Your task to perform on an android device: change timer sound Image 0: 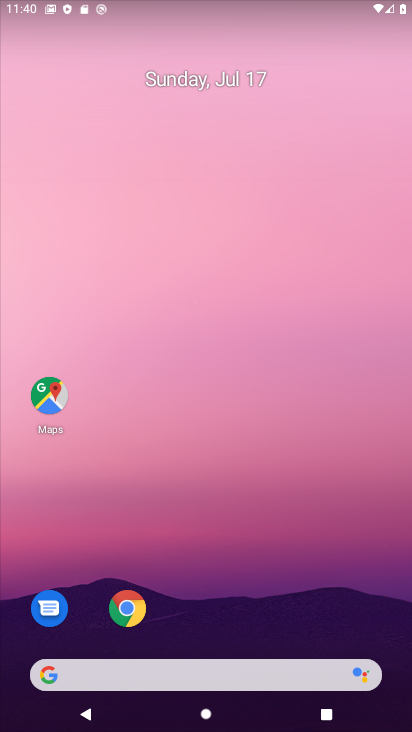
Step 0: drag from (213, 649) to (257, 175)
Your task to perform on an android device: change timer sound Image 1: 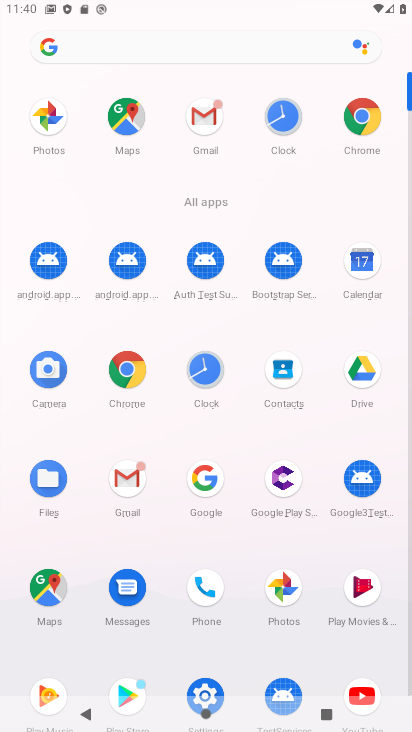
Step 1: click (207, 385)
Your task to perform on an android device: change timer sound Image 2: 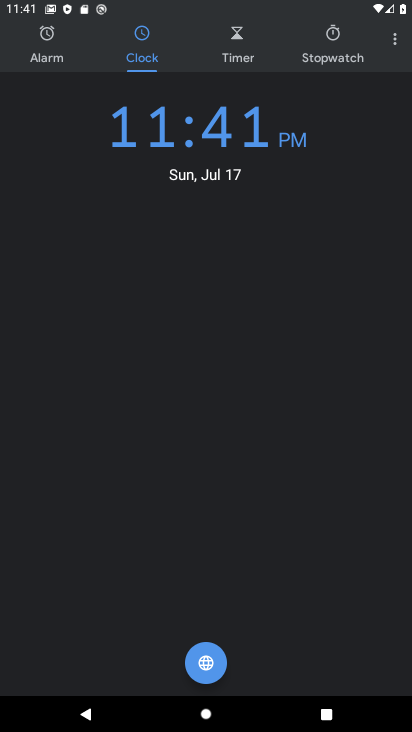
Step 2: click (397, 42)
Your task to perform on an android device: change timer sound Image 3: 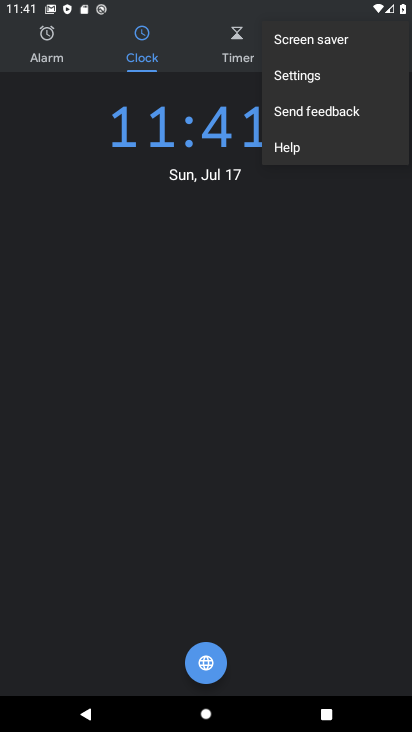
Step 3: click (325, 69)
Your task to perform on an android device: change timer sound Image 4: 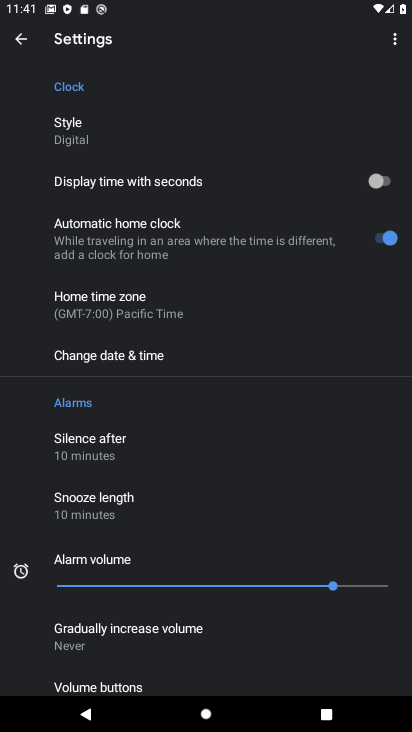
Step 4: drag from (156, 579) to (245, 195)
Your task to perform on an android device: change timer sound Image 5: 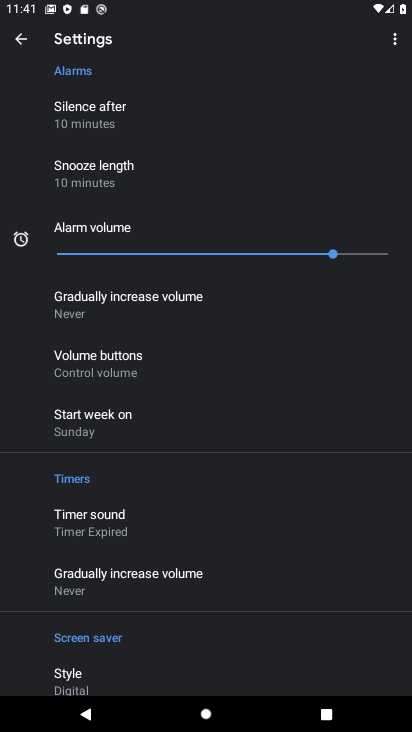
Step 5: click (145, 535)
Your task to perform on an android device: change timer sound Image 6: 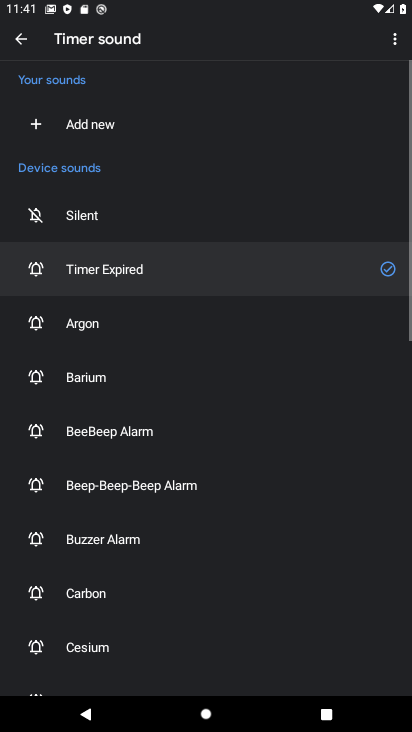
Step 6: click (157, 654)
Your task to perform on an android device: change timer sound Image 7: 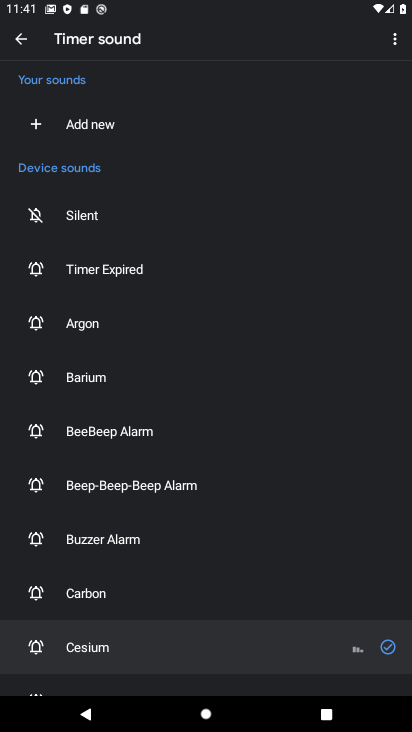
Step 7: task complete